Your task to perform on an android device: set the stopwatch Image 0: 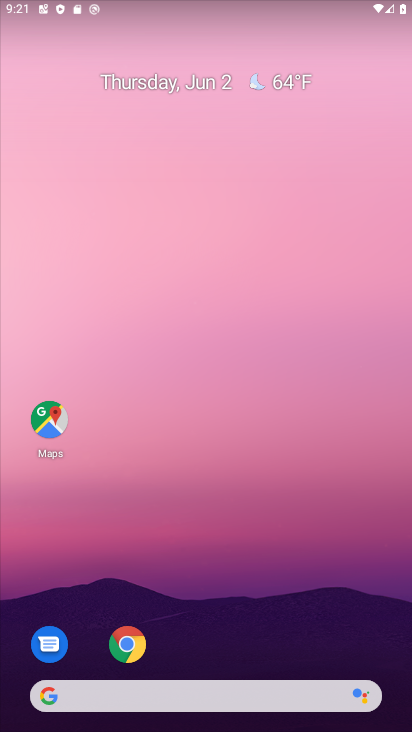
Step 0: press home button
Your task to perform on an android device: set the stopwatch Image 1: 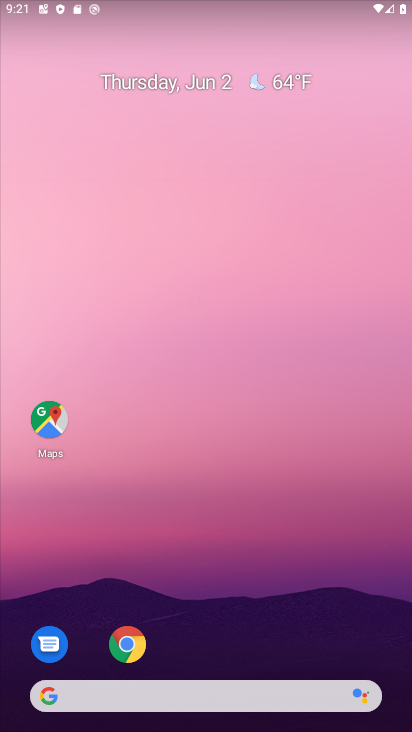
Step 1: drag from (231, 629) to (99, 122)
Your task to perform on an android device: set the stopwatch Image 2: 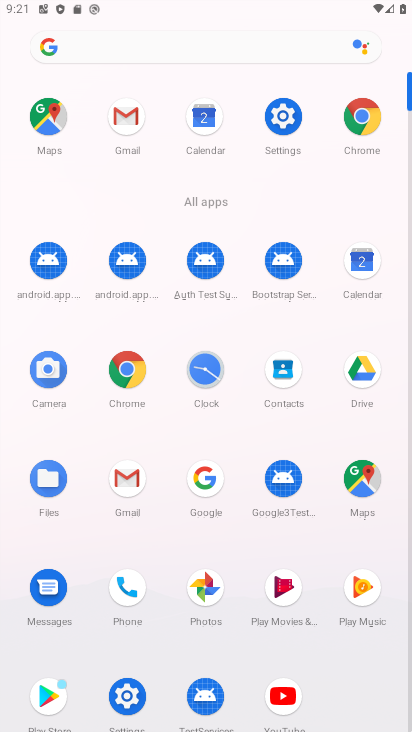
Step 2: click (205, 372)
Your task to perform on an android device: set the stopwatch Image 3: 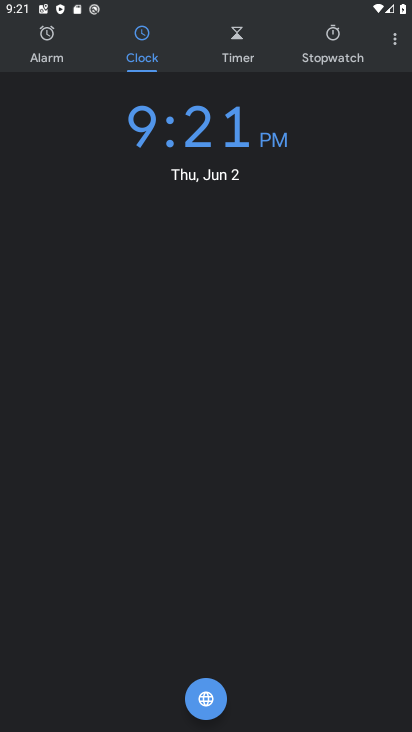
Step 3: click (313, 46)
Your task to perform on an android device: set the stopwatch Image 4: 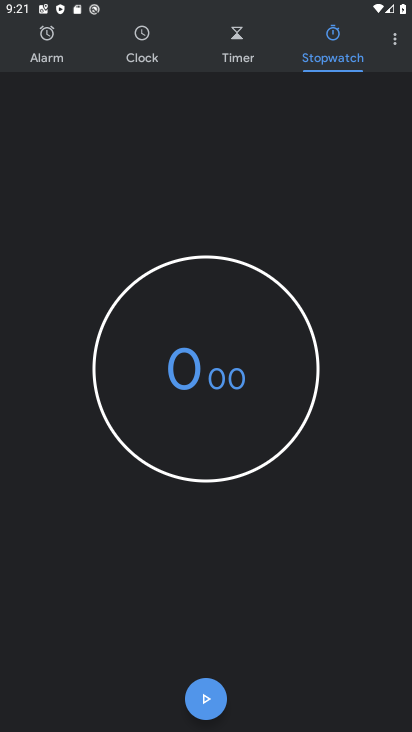
Step 4: task complete